Your task to perform on an android device: Go to network settings Image 0: 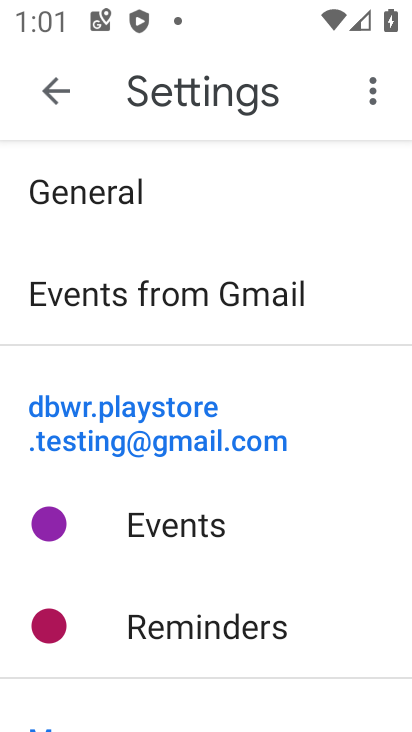
Step 0: press home button
Your task to perform on an android device: Go to network settings Image 1: 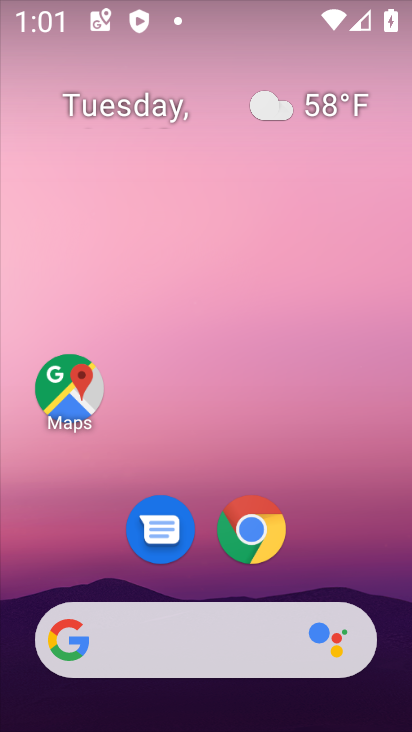
Step 1: drag from (276, 536) to (265, 0)
Your task to perform on an android device: Go to network settings Image 2: 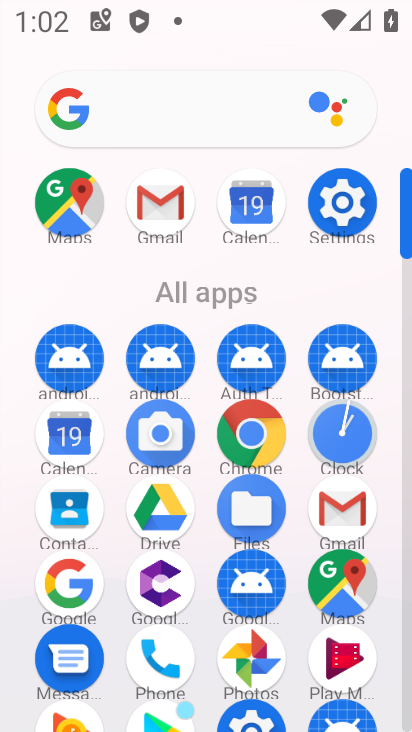
Step 2: click (328, 212)
Your task to perform on an android device: Go to network settings Image 3: 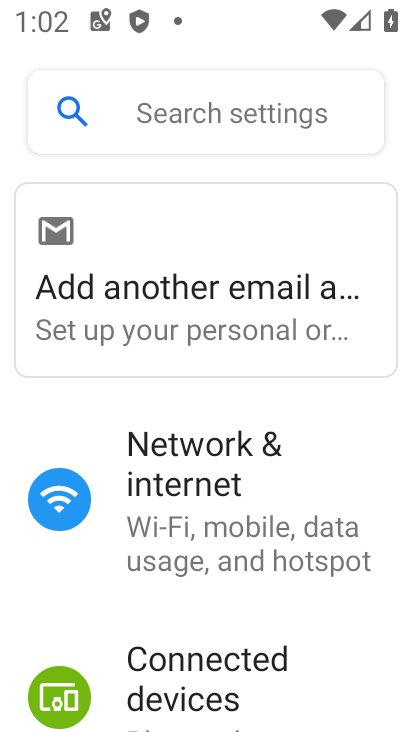
Step 3: click (306, 494)
Your task to perform on an android device: Go to network settings Image 4: 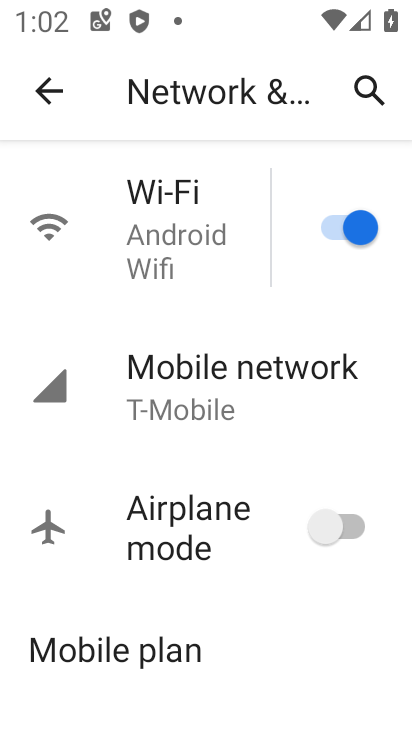
Step 4: click (211, 387)
Your task to perform on an android device: Go to network settings Image 5: 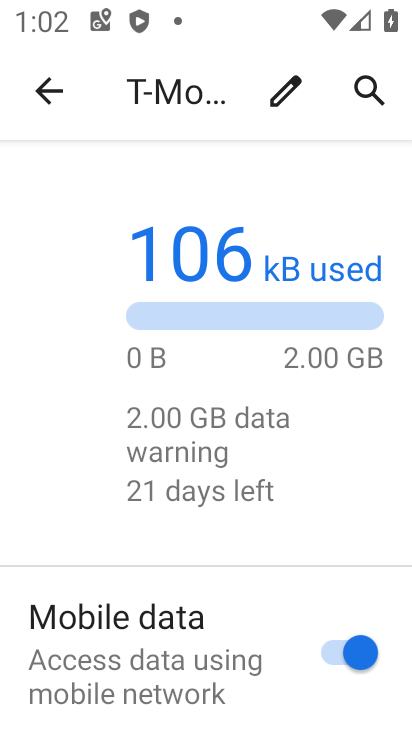
Step 5: task complete